Your task to perform on an android device: Go to eBay Image 0: 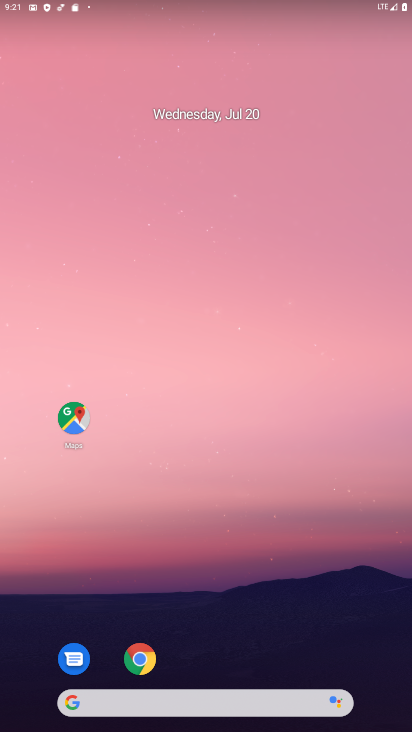
Step 0: click (139, 659)
Your task to perform on an android device: Go to eBay Image 1: 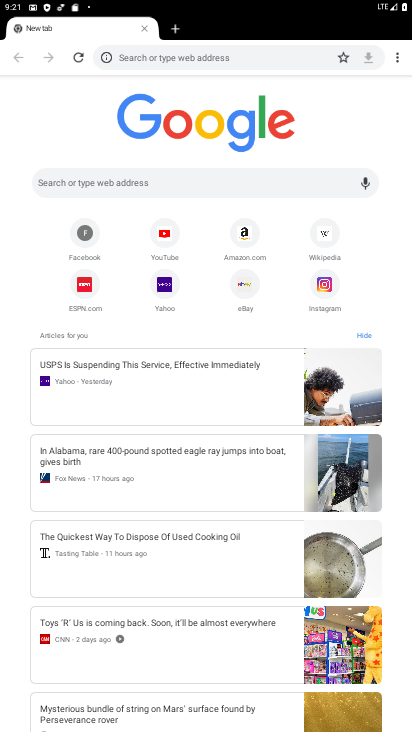
Step 1: click (246, 283)
Your task to perform on an android device: Go to eBay Image 2: 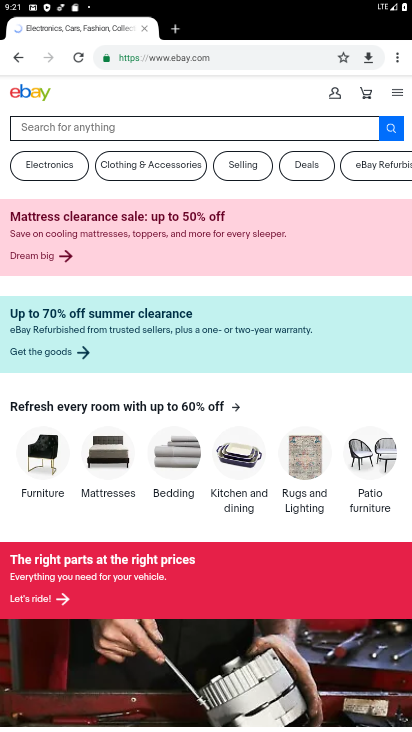
Step 2: task complete